Your task to perform on an android device: Open the phone app and click the voicemail tab. Image 0: 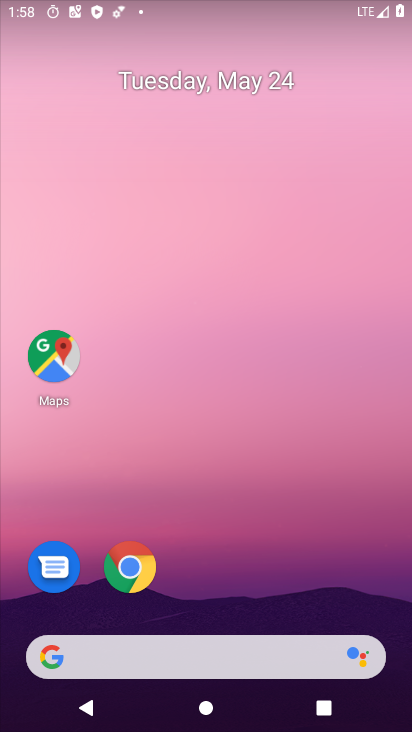
Step 0: drag from (263, 577) to (394, 4)
Your task to perform on an android device: Open the phone app and click the voicemail tab. Image 1: 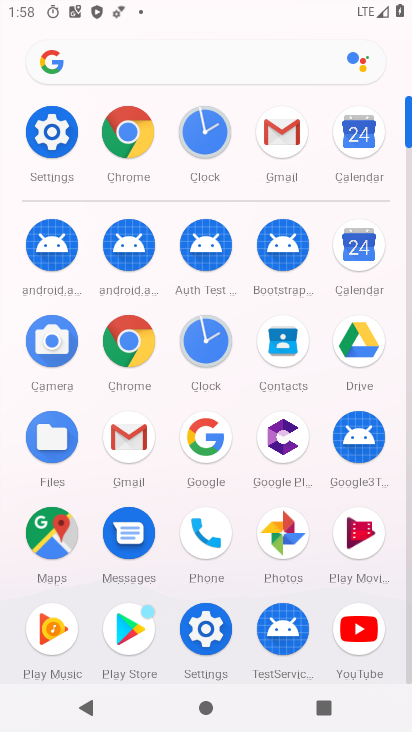
Step 1: click (203, 544)
Your task to perform on an android device: Open the phone app and click the voicemail tab. Image 2: 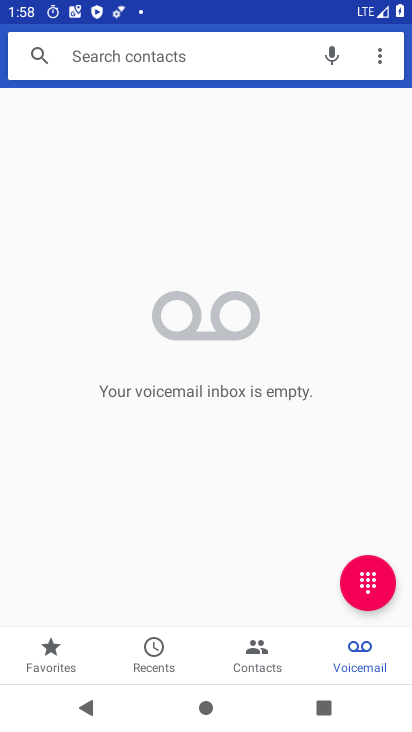
Step 2: task complete